Your task to perform on an android device: Open the calendar and show me this week's events? Image 0: 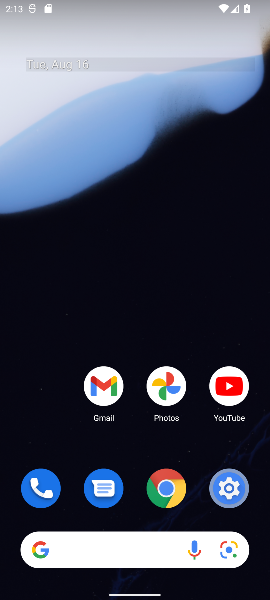
Step 0: drag from (68, 413) to (97, 194)
Your task to perform on an android device: Open the calendar and show me this week's events? Image 1: 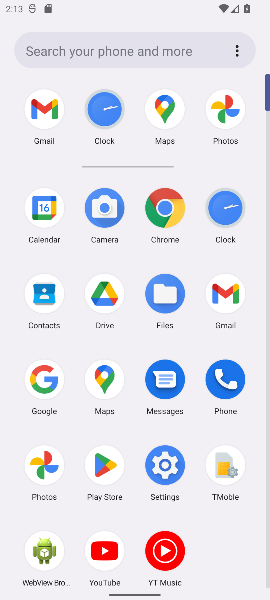
Step 1: click (169, 477)
Your task to perform on an android device: Open the calendar and show me this week's events? Image 2: 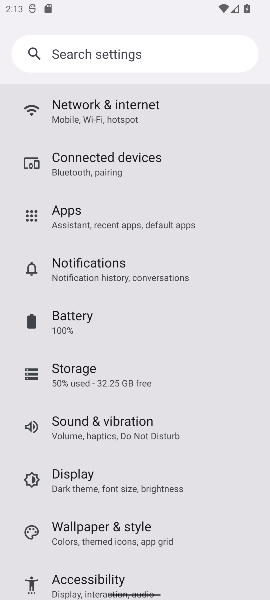
Step 2: task complete